Your task to perform on an android device: Show me popular videos on Youtube Image 0: 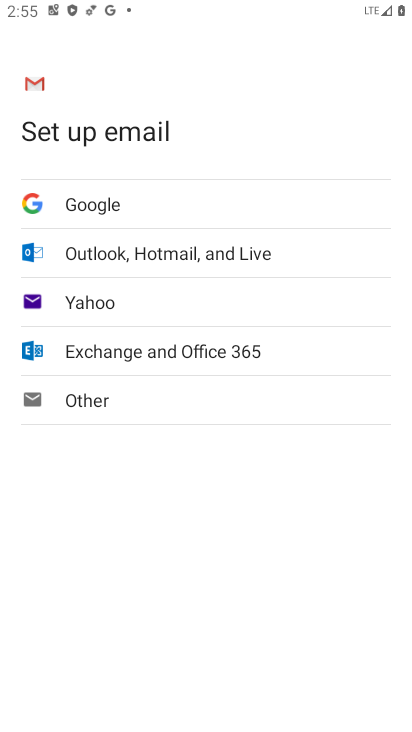
Step 0: press home button
Your task to perform on an android device: Show me popular videos on Youtube Image 1: 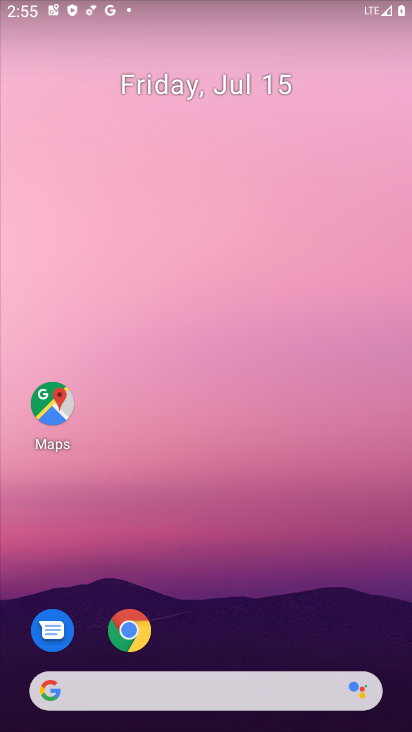
Step 1: drag from (176, 686) to (216, 106)
Your task to perform on an android device: Show me popular videos on Youtube Image 2: 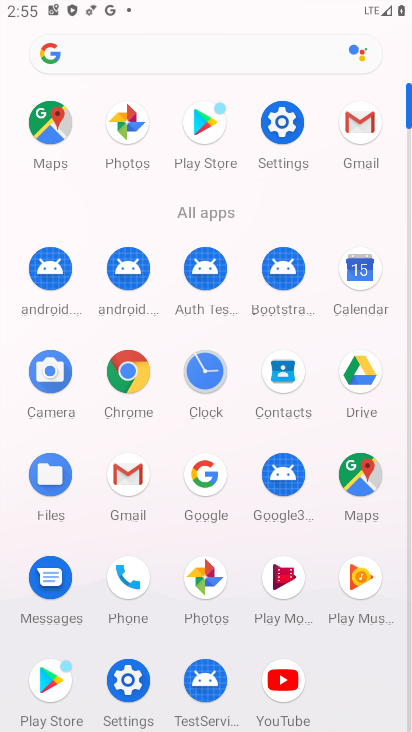
Step 2: click (271, 681)
Your task to perform on an android device: Show me popular videos on Youtube Image 3: 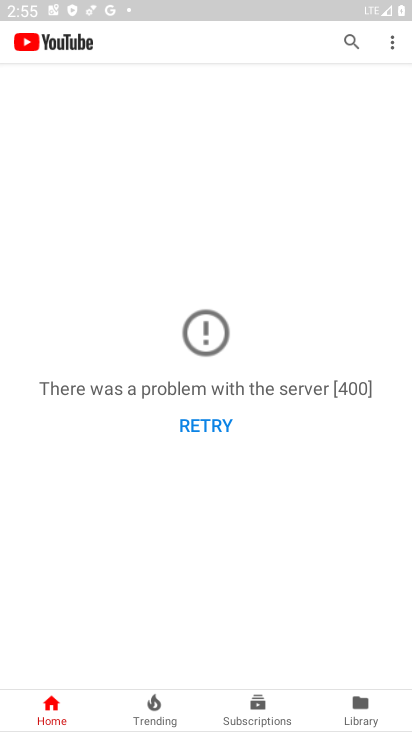
Step 3: task complete